Your task to perform on an android device: Show me productivity apps on the Play Store Image 0: 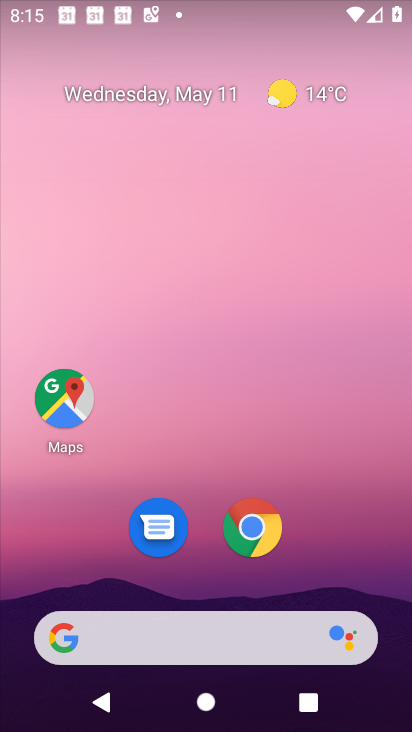
Step 0: drag from (201, 602) to (189, 76)
Your task to perform on an android device: Show me productivity apps on the Play Store Image 1: 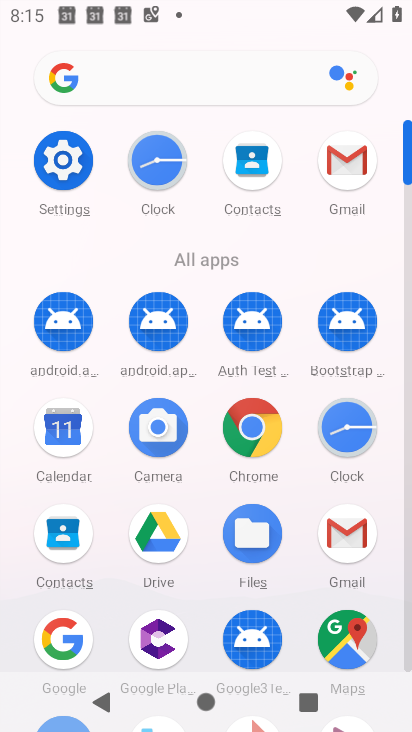
Step 1: drag from (201, 577) to (257, 31)
Your task to perform on an android device: Show me productivity apps on the Play Store Image 2: 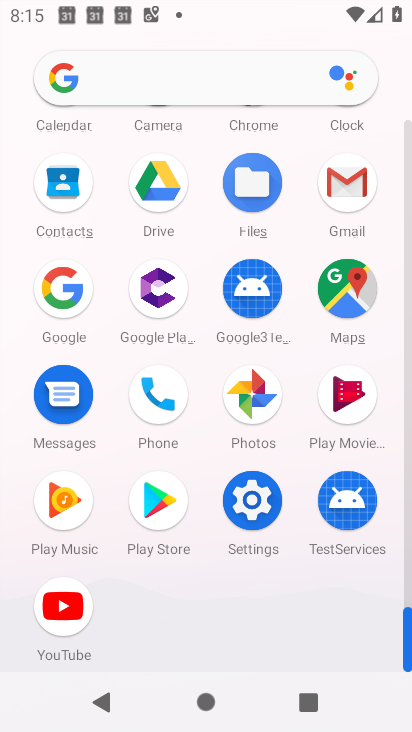
Step 2: click (142, 485)
Your task to perform on an android device: Show me productivity apps on the Play Store Image 3: 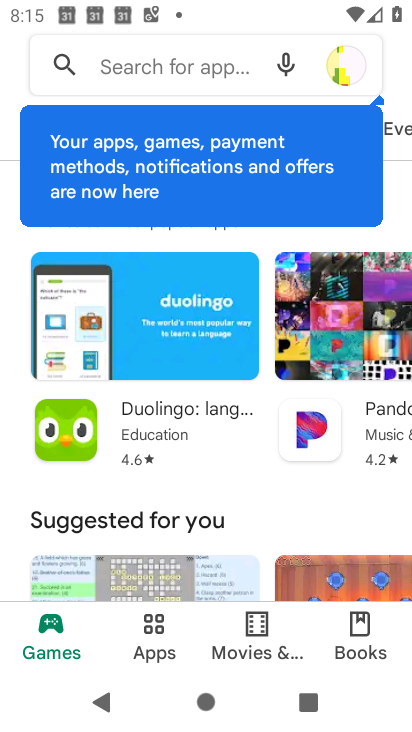
Step 3: click (258, 519)
Your task to perform on an android device: Show me productivity apps on the Play Store Image 4: 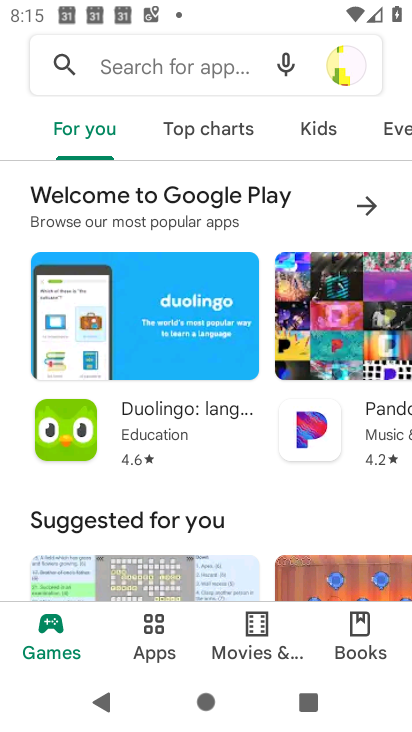
Step 4: click (390, 123)
Your task to perform on an android device: Show me productivity apps on the Play Store Image 5: 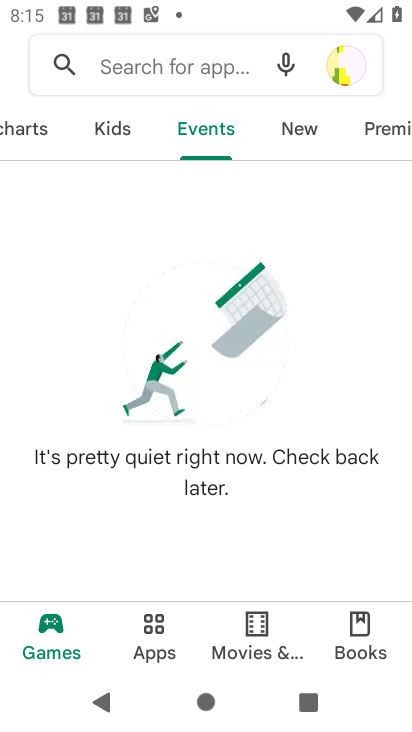
Step 5: click (353, 137)
Your task to perform on an android device: Show me productivity apps on the Play Store Image 6: 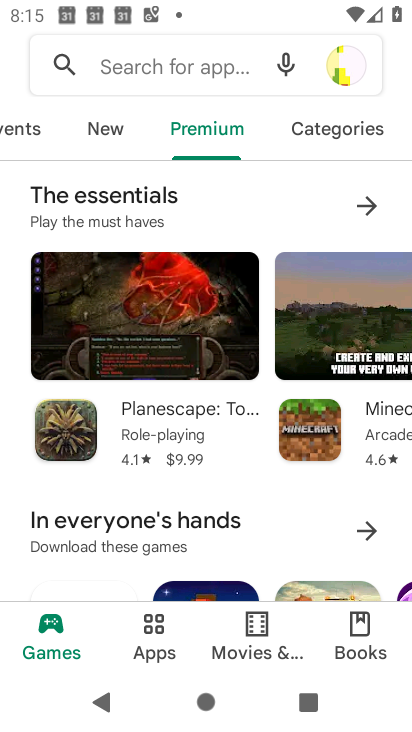
Step 6: click (353, 137)
Your task to perform on an android device: Show me productivity apps on the Play Store Image 7: 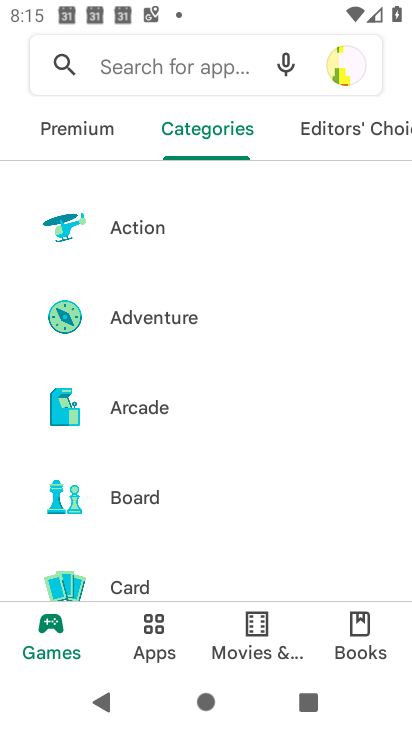
Step 7: drag from (189, 509) to (227, 81)
Your task to perform on an android device: Show me productivity apps on the Play Store Image 8: 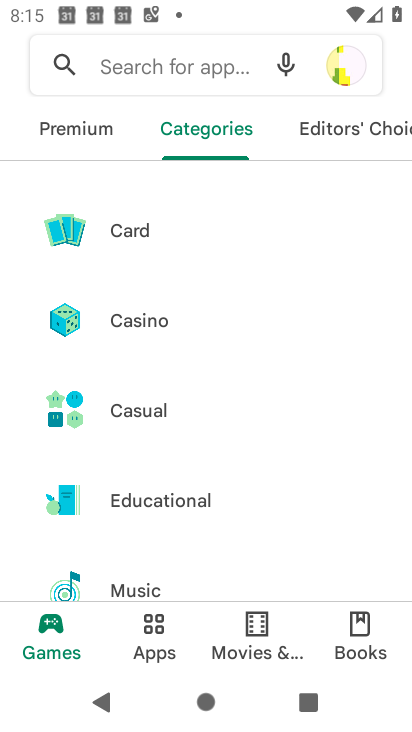
Step 8: drag from (153, 529) to (223, 125)
Your task to perform on an android device: Show me productivity apps on the Play Store Image 9: 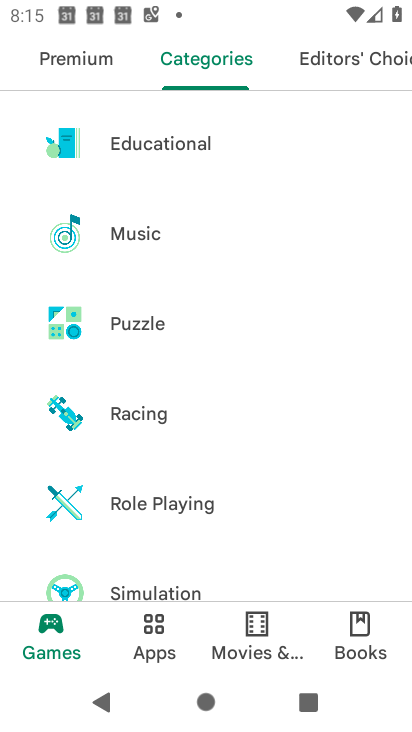
Step 9: drag from (121, 510) to (230, 153)
Your task to perform on an android device: Show me productivity apps on the Play Store Image 10: 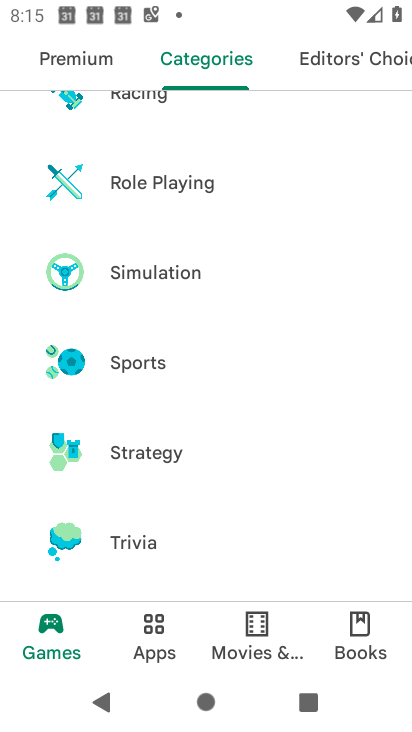
Step 10: drag from (258, 208) to (268, 600)
Your task to perform on an android device: Show me productivity apps on the Play Store Image 11: 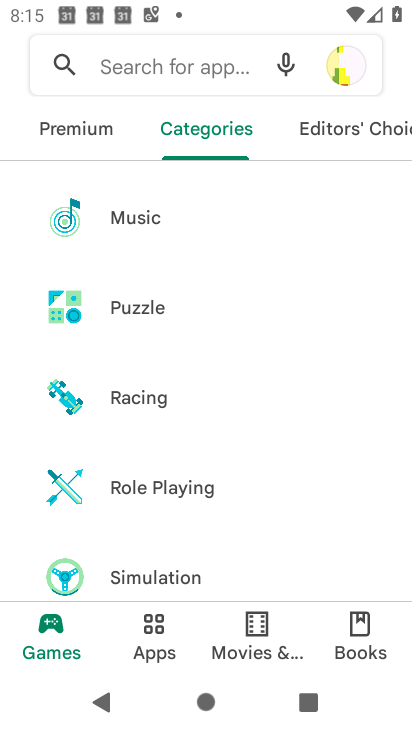
Step 11: drag from (279, 229) to (279, 525)
Your task to perform on an android device: Show me productivity apps on the Play Store Image 12: 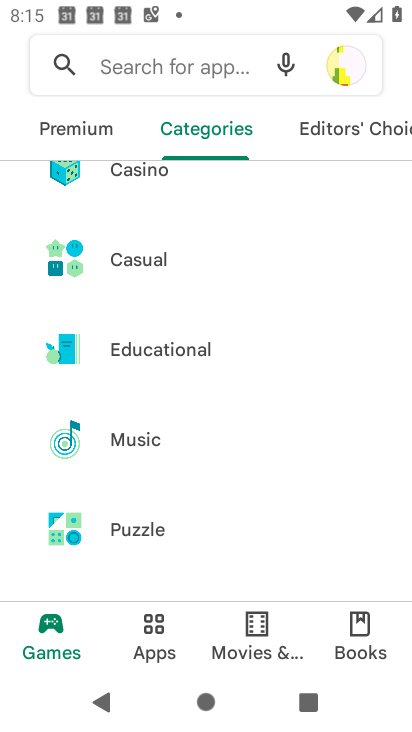
Step 12: drag from (247, 249) to (224, 598)
Your task to perform on an android device: Show me productivity apps on the Play Store Image 13: 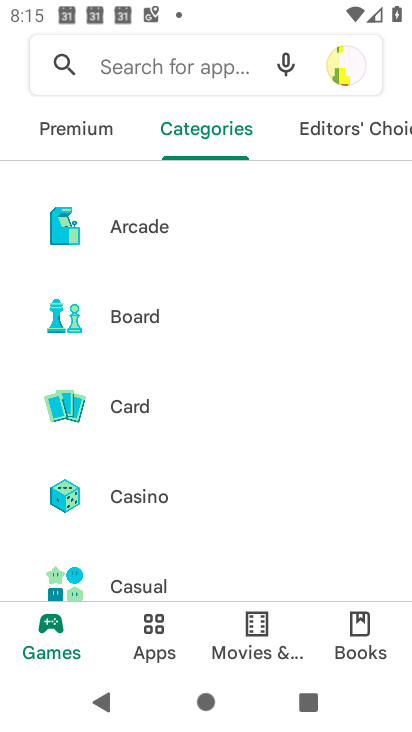
Step 13: drag from (217, 557) to (279, 162)
Your task to perform on an android device: Show me productivity apps on the Play Store Image 14: 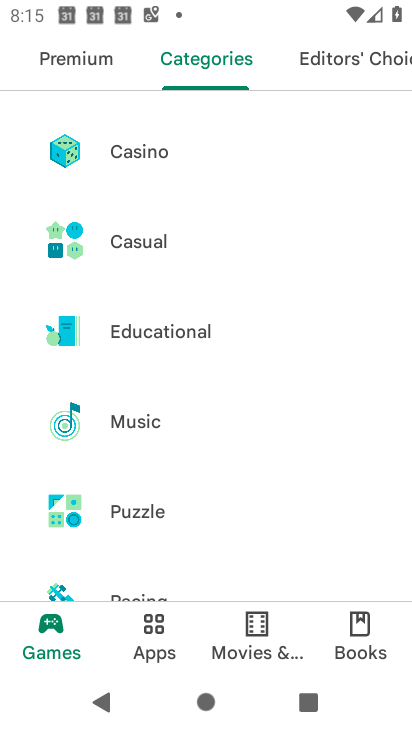
Step 14: click (156, 614)
Your task to perform on an android device: Show me productivity apps on the Play Store Image 15: 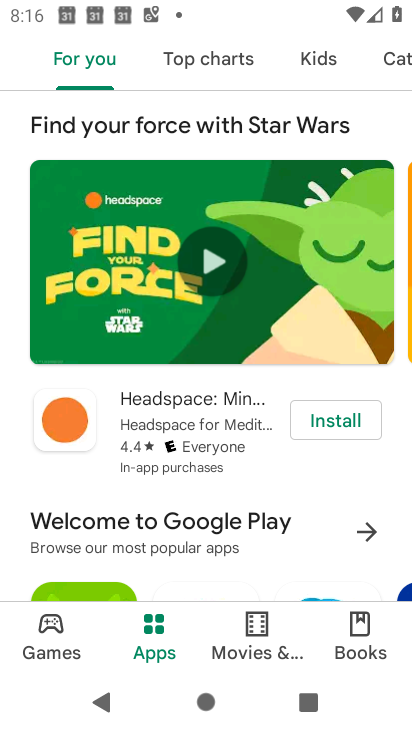
Step 15: click (398, 48)
Your task to perform on an android device: Show me productivity apps on the Play Store Image 16: 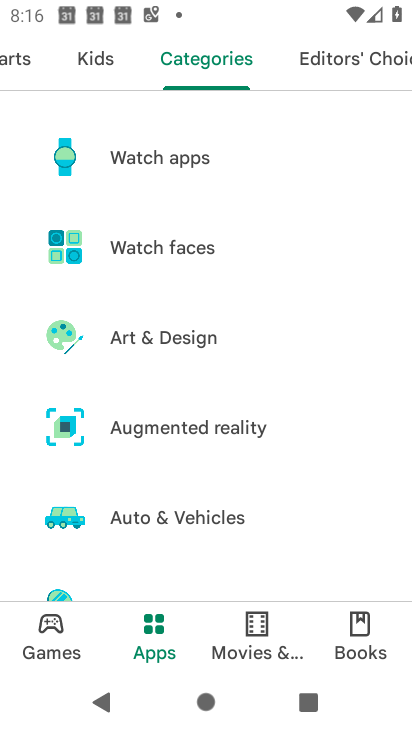
Step 16: drag from (173, 499) to (191, 31)
Your task to perform on an android device: Show me productivity apps on the Play Store Image 17: 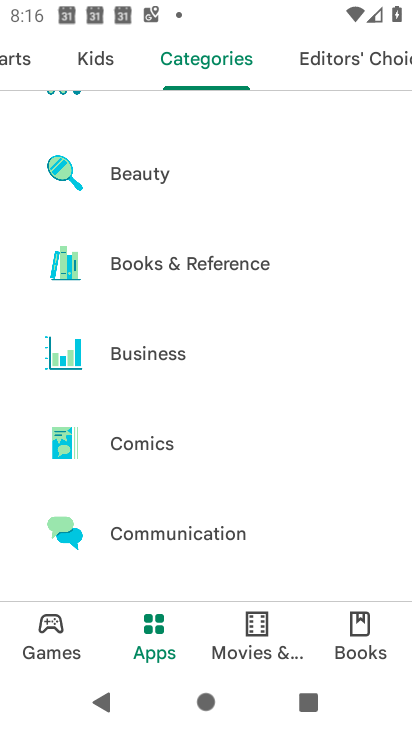
Step 17: drag from (214, 518) to (313, 107)
Your task to perform on an android device: Show me productivity apps on the Play Store Image 18: 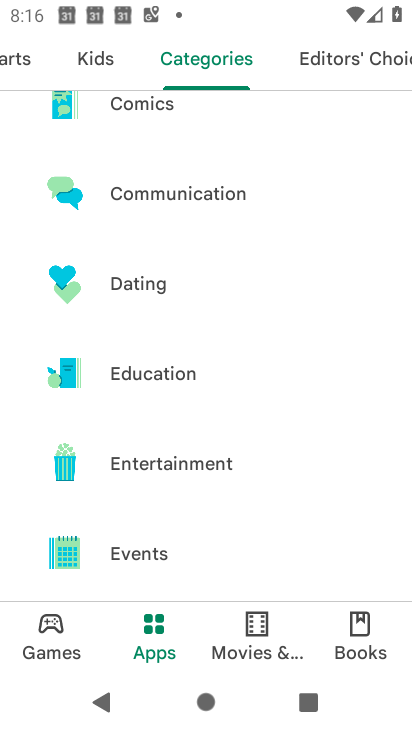
Step 18: drag from (193, 476) to (209, 139)
Your task to perform on an android device: Show me productivity apps on the Play Store Image 19: 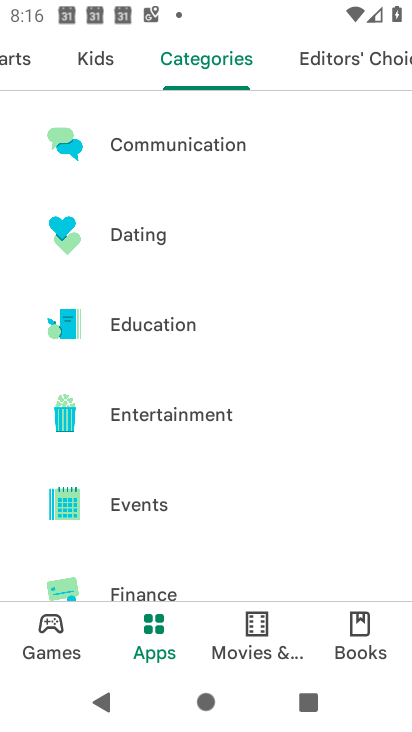
Step 19: drag from (216, 548) to (245, 170)
Your task to perform on an android device: Show me productivity apps on the Play Store Image 20: 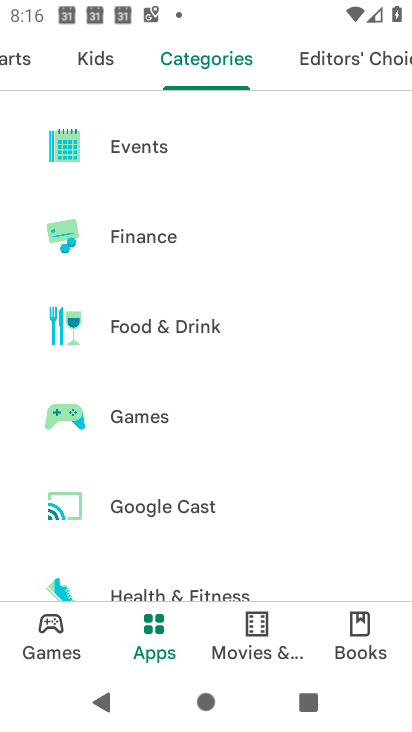
Step 20: drag from (183, 408) to (204, 48)
Your task to perform on an android device: Show me productivity apps on the Play Store Image 21: 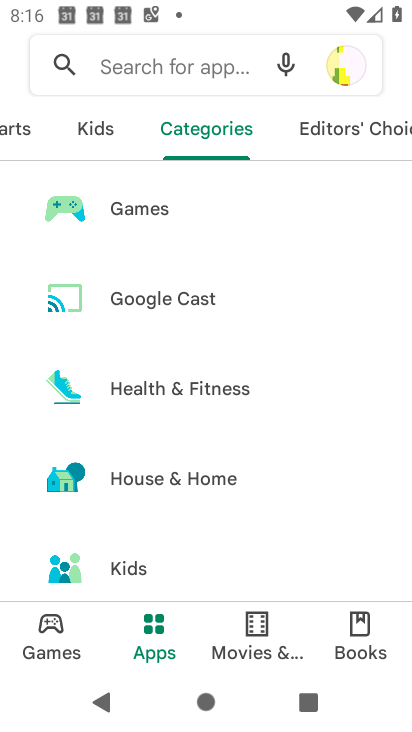
Step 21: drag from (107, 557) to (190, 167)
Your task to perform on an android device: Show me productivity apps on the Play Store Image 22: 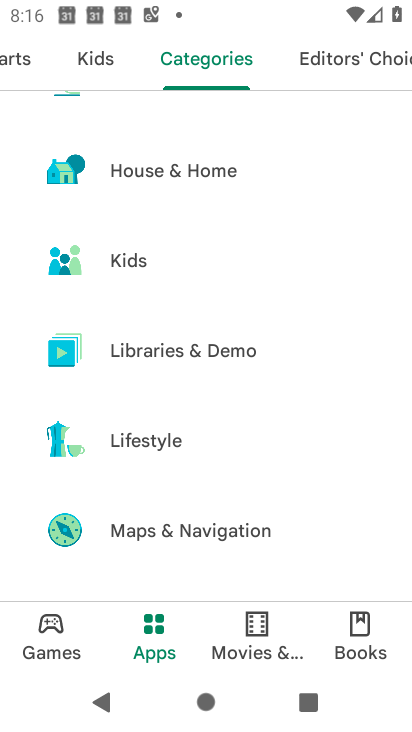
Step 22: drag from (189, 519) to (261, 152)
Your task to perform on an android device: Show me productivity apps on the Play Store Image 23: 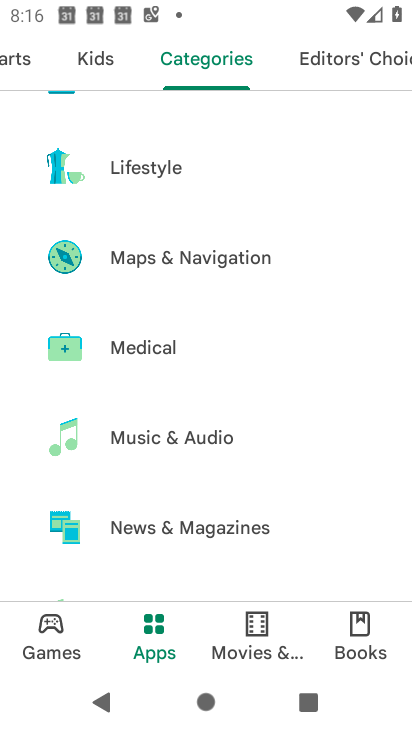
Step 23: drag from (157, 506) to (219, 183)
Your task to perform on an android device: Show me productivity apps on the Play Store Image 24: 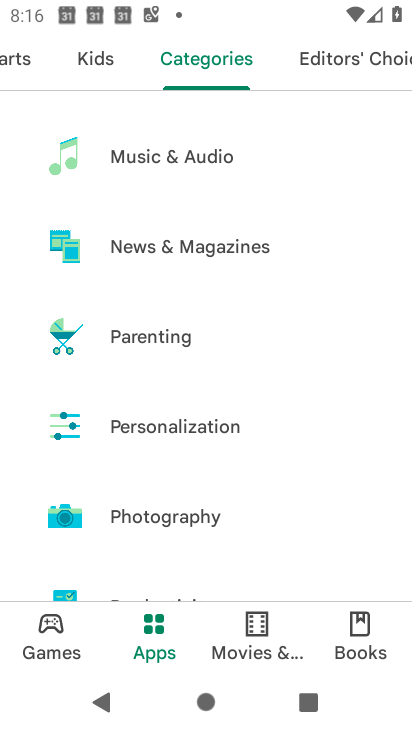
Step 24: drag from (147, 562) to (324, 20)
Your task to perform on an android device: Show me productivity apps on the Play Store Image 25: 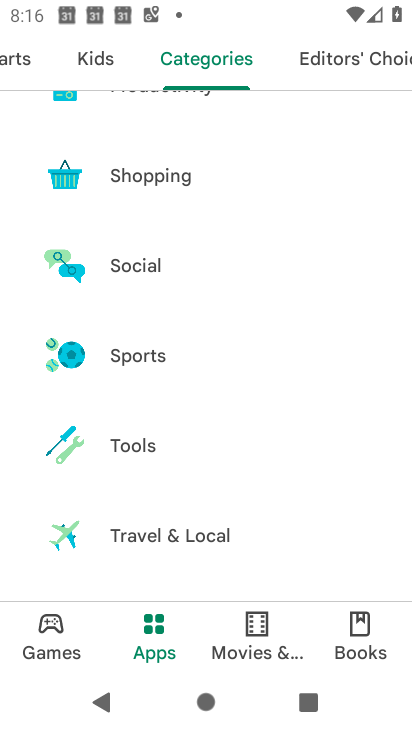
Step 25: drag from (205, 204) to (220, 506)
Your task to perform on an android device: Show me productivity apps on the Play Store Image 26: 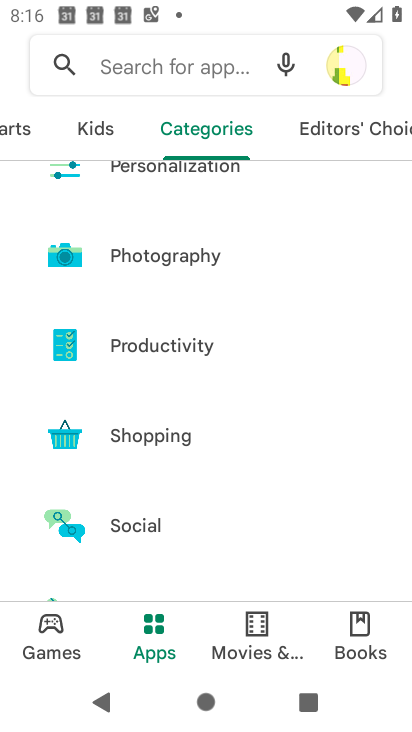
Step 26: click (173, 370)
Your task to perform on an android device: Show me productivity apps on the Play Store Image 27: 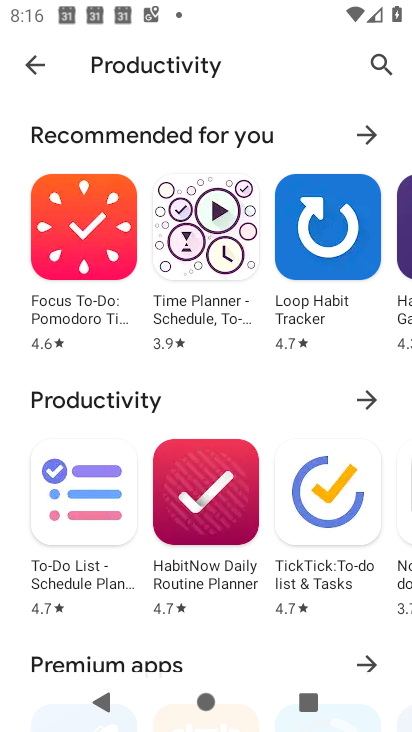
Step 27: task complete